Your task to perform on an android device: Clear the cart on target. Add jbl charge 4 to the cart on target Image 0: 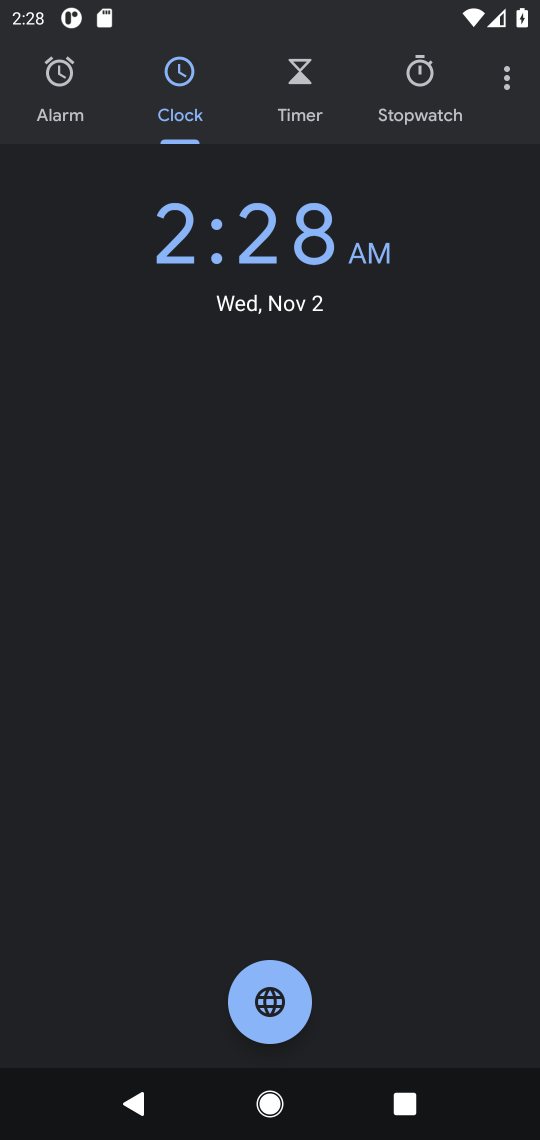
Step 0: press home button
Your task to perform on an android device: Clear the cart on target. Add jbl charge 4 to the cart on target Image 1: 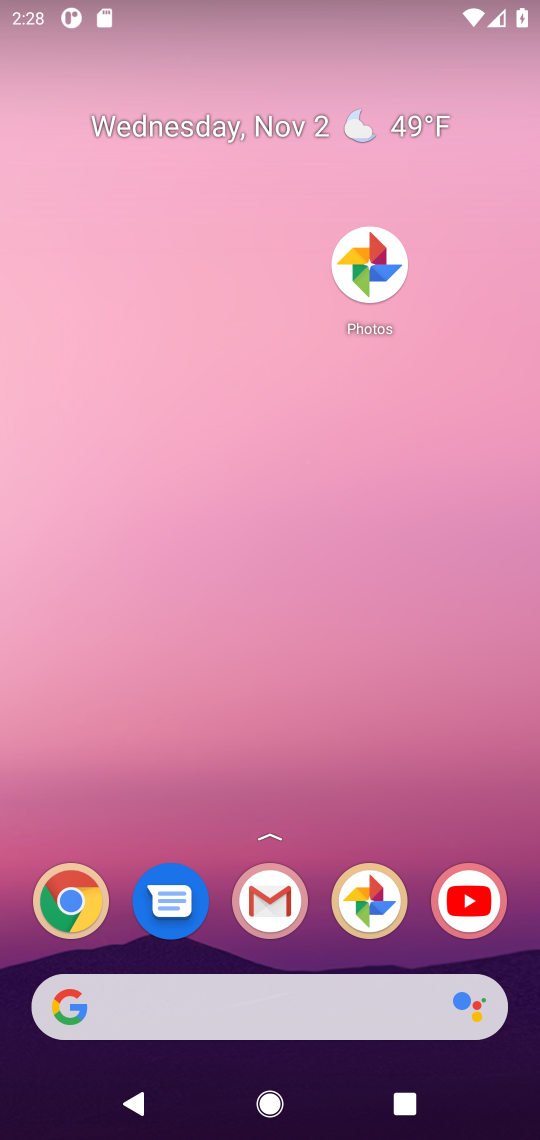
Step 1: drag from (318, 964) to (365, 164)
Your task to perform on an android device: Clear the cart on target. Add jbl charge 4 to the cart on target Image 2: 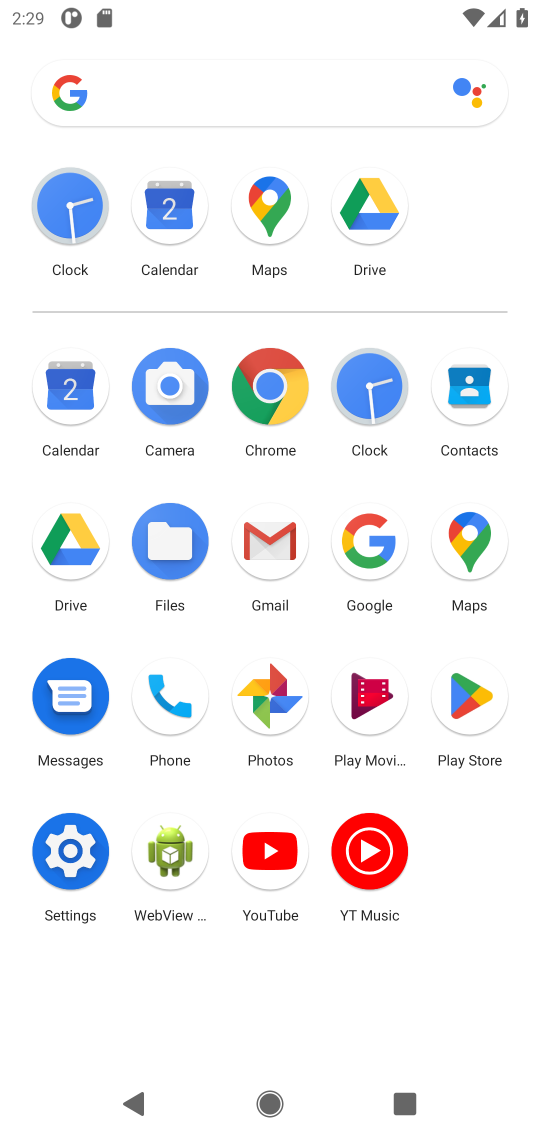
Step 2: click (262, 385)
Your task to perform on an android device: Clear the cart on target. Add jbl charge 4 to the cart on target Image 3: 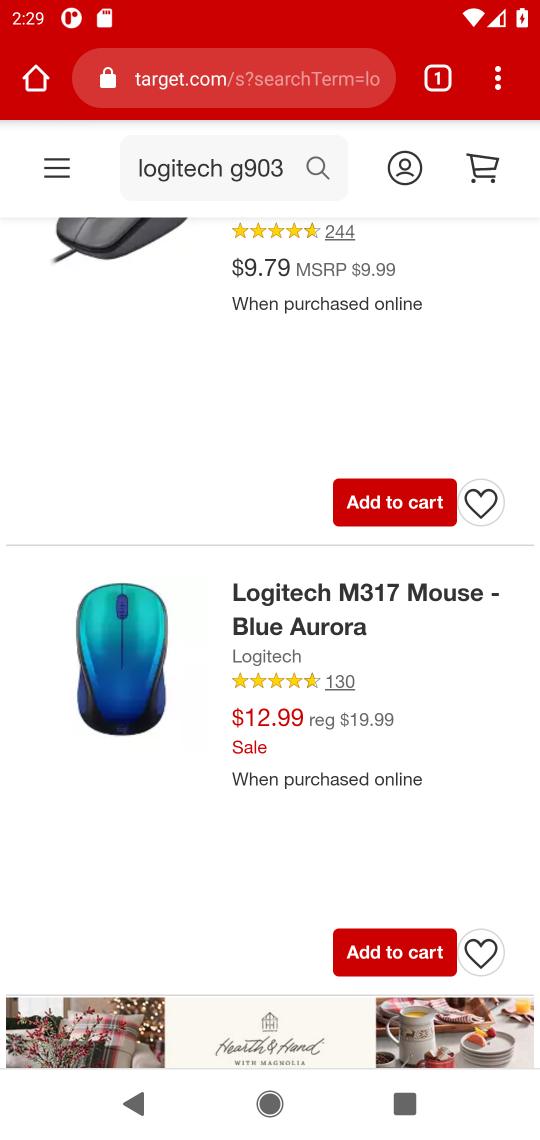
Step 3: click (468, 164)
Your task to perform on an android device: Clear the cart on target. Add jbl charge 4 to the cart on target Image 4: 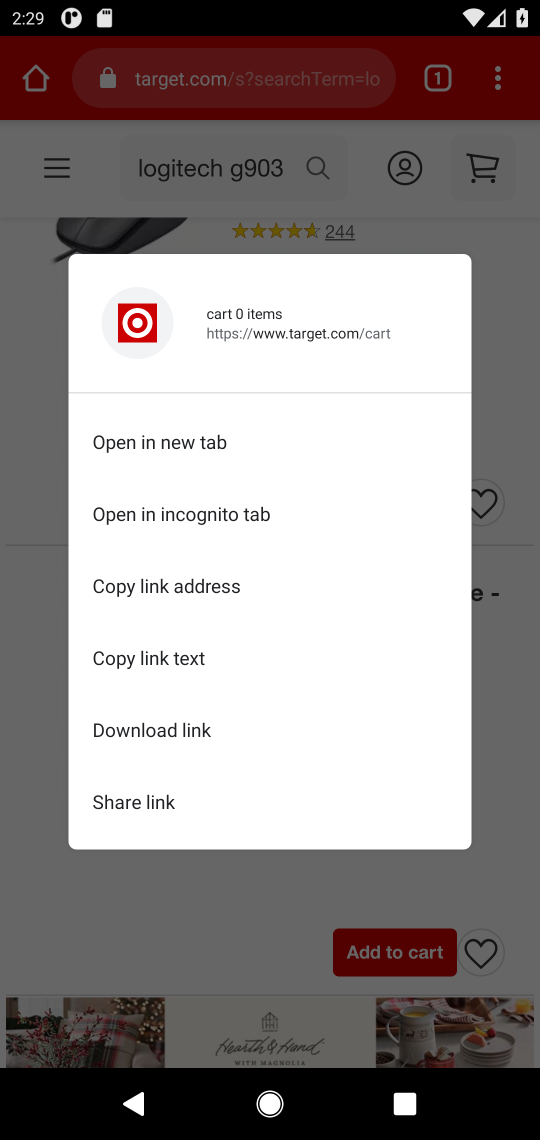
Step 4: click (468, 164)
Your task to perform on an android device: Clear the cart on target. Add jbl charge 4 to the cart on target Image 5: 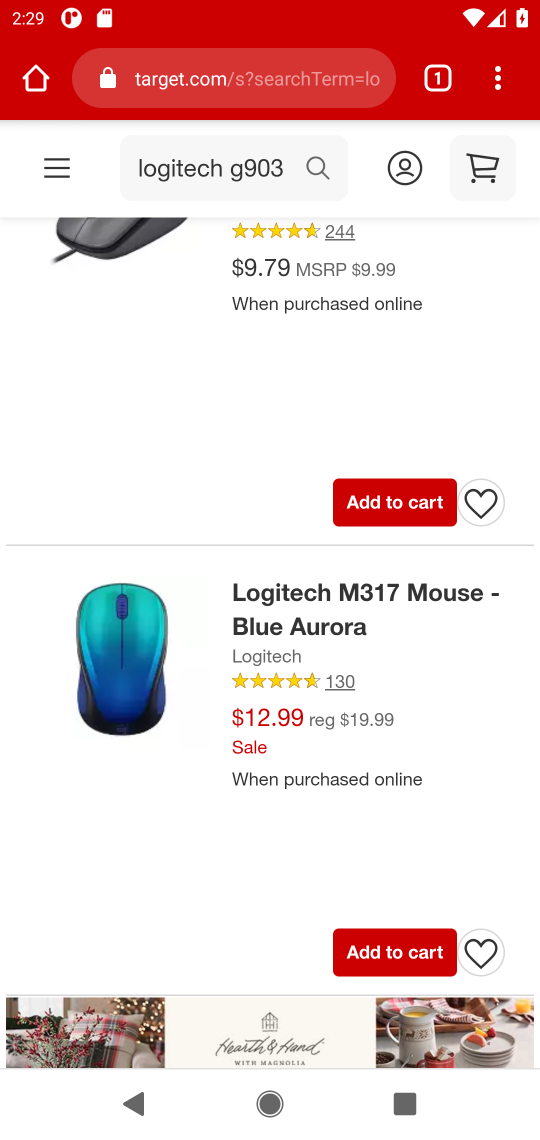
Step 5: click (468, 164)
Your task to perform on an android device: Clear the cart on target. Add jbl charge 4 to the cart on target Image 6: 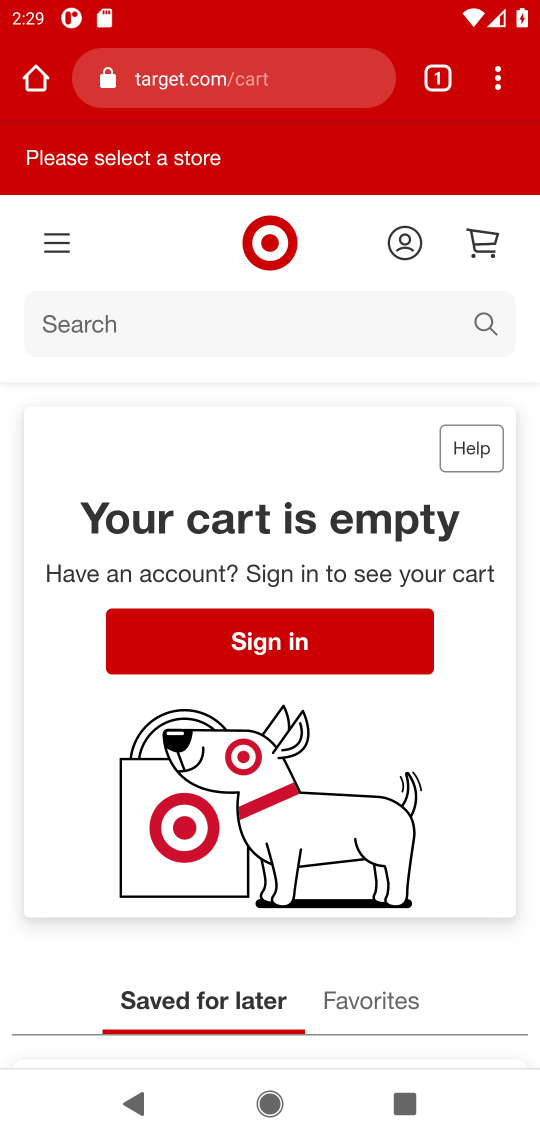
Step 6: click (228, 329)
Your task to perform on an android device: Clear the cart on target. Add jbl charge 4 to the cart on target Image 7: 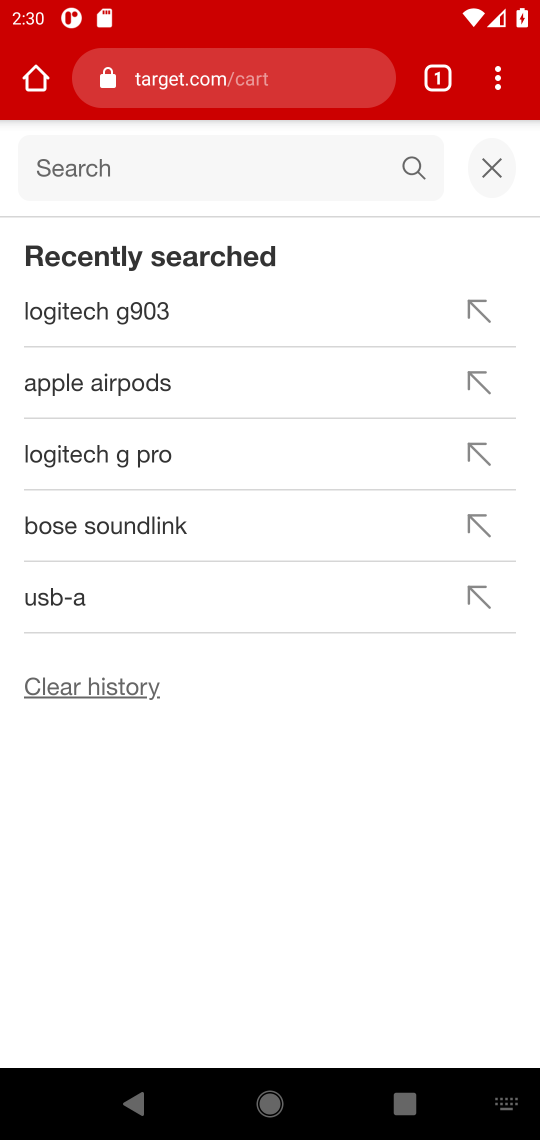
Step 7: type "jbl charge 4"
Your task to perform on an android device: Clear the cart on target. Add jbl charge 4 to the cart on target Image 8: 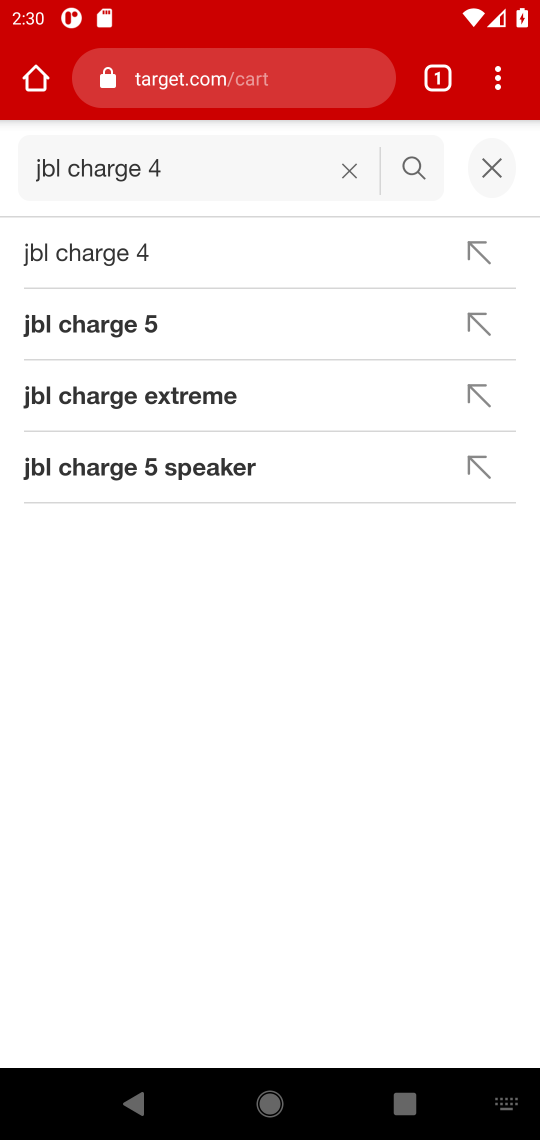
Step 8: press enter
Your task to perform on an android device: Clear the cart on target. Add jbl charge 4 to the cart on target Image 9: 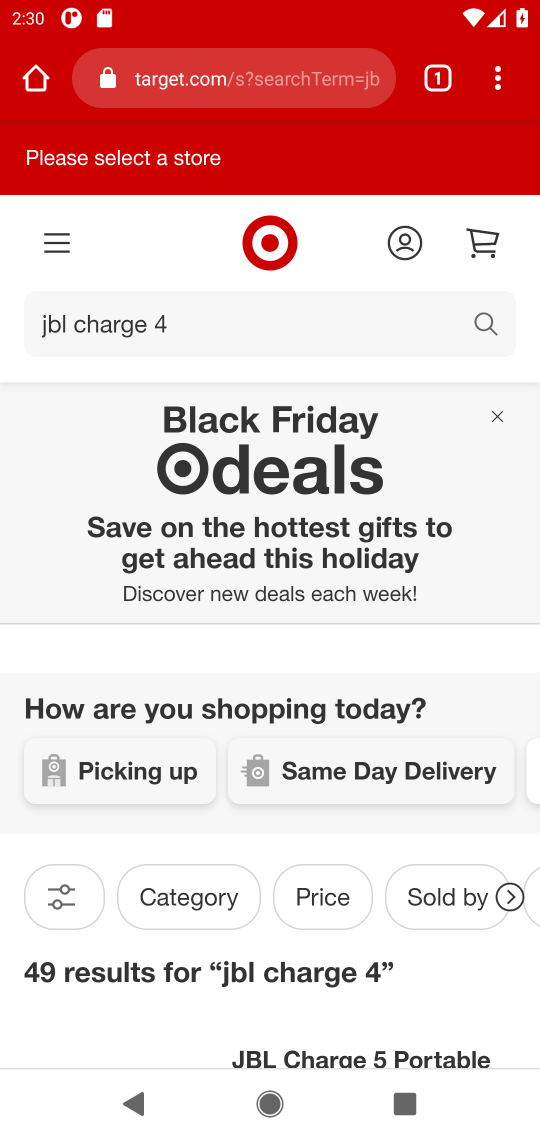
Step 9: drag from (319, 884) to (515, 406)
Your task to perform on an android device: Clear the cart on target. Add jbl charge 4 to the cart on target Image 10: 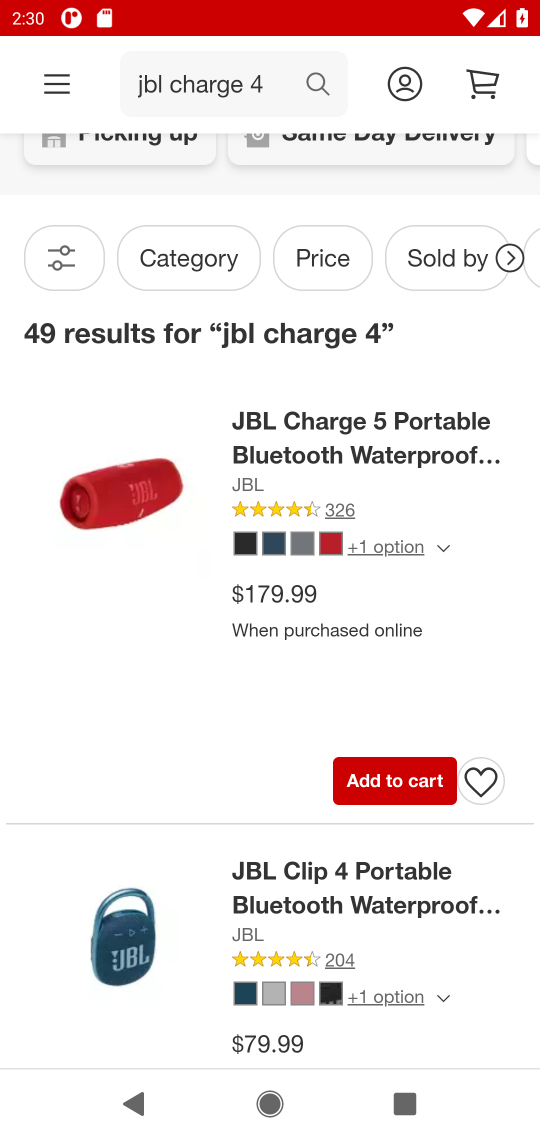
Step 10: drag from (239, 787) to (241, 477)
Your task to perform on an android device: Clear the cart on target. Add jbl charge 4 to the cart on target Image 11: 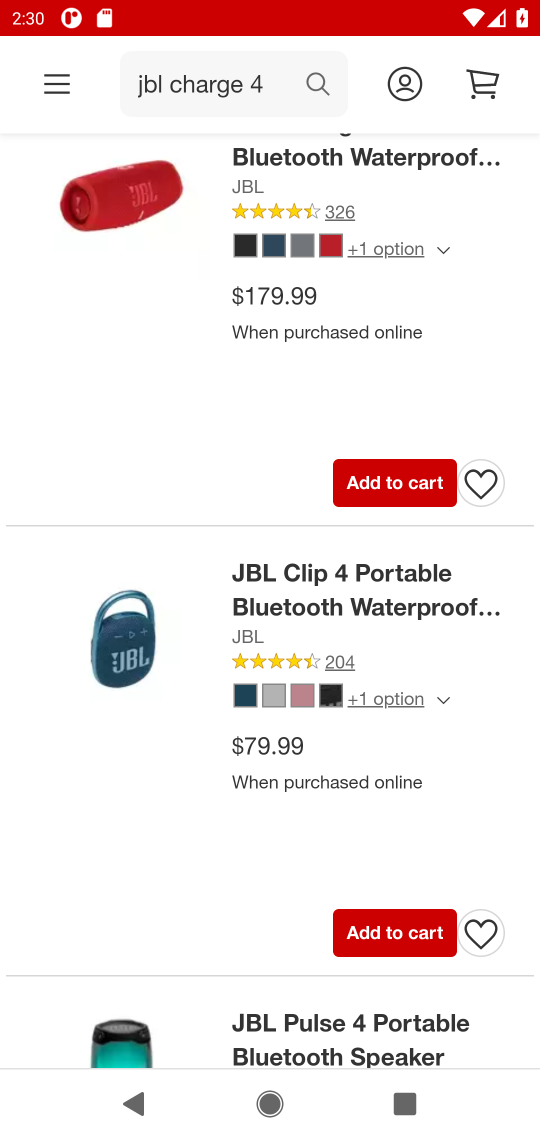
Step 11: click (359, 616)
Your task to perform on an android device: Clear the cart on target. Add jbl charge 4 to the cart on target Image 12: 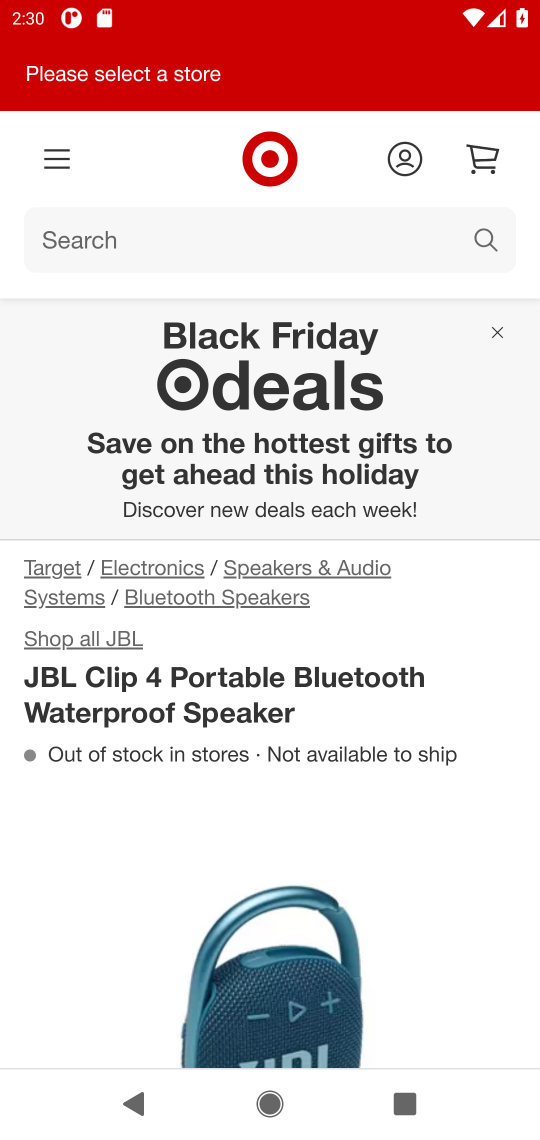
Step 12: task complete